Your task to perform on an android device: Open display settings Image 0: 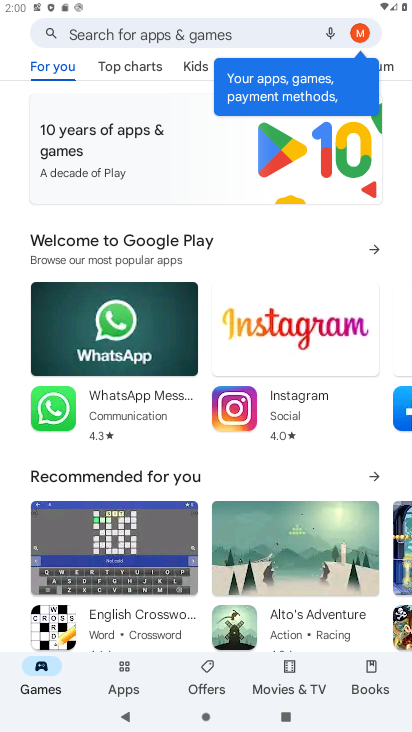
Step 0: press home button
Your task to perform on an android device: Open display settings Image 1: 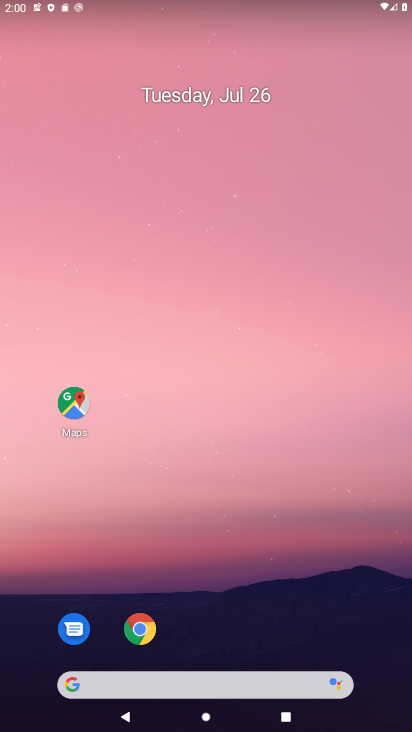
Step 1: drag from (246, 618) to (146, 204)
Your task to perform on an android device: Open display settings Image 2: 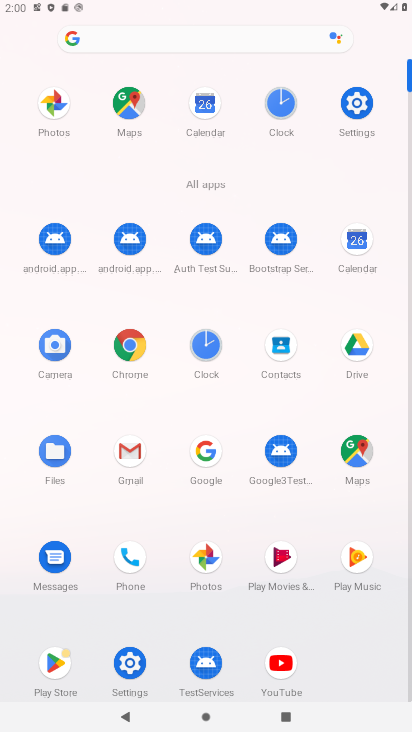
Step 2: click (216, 346)
Your task to perform on an android device: Open display settings Image 3: 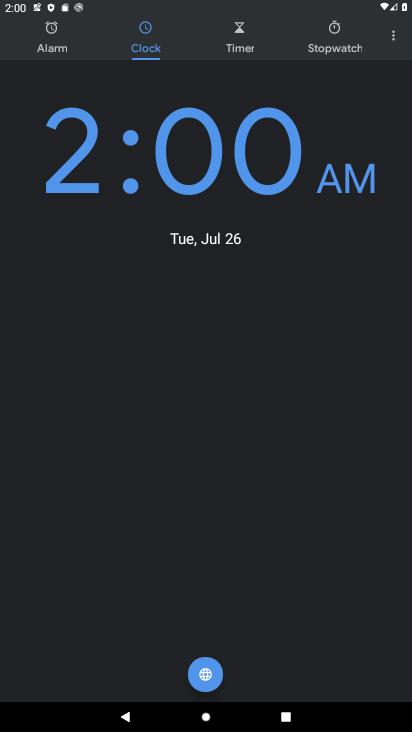
Step 3: press home button
Your task to perform on an android device: Open display settings Image 4: 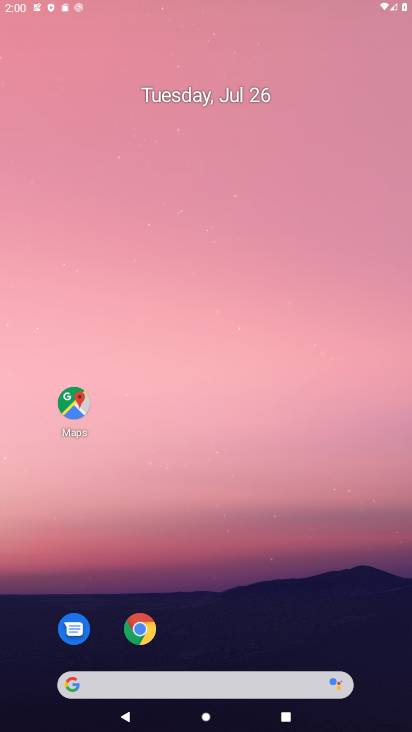
Step 4: drag from (230, 623) to (206, 162)
Your task to perform on an android device: Open display settings Image 5: 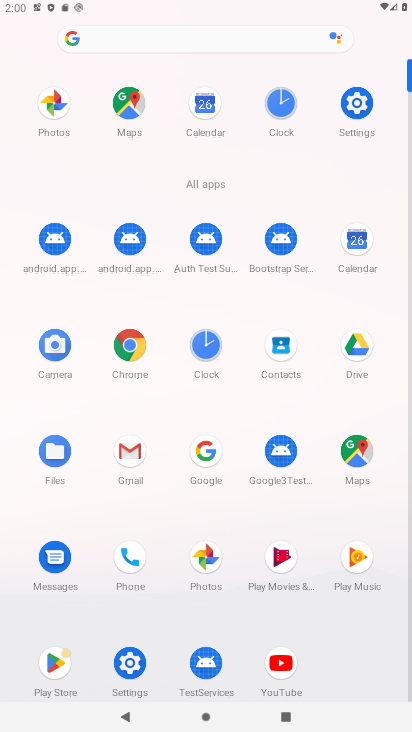
Step 5: click (367, 119)
Your task to perform on an android device: Open display settings Image 6: 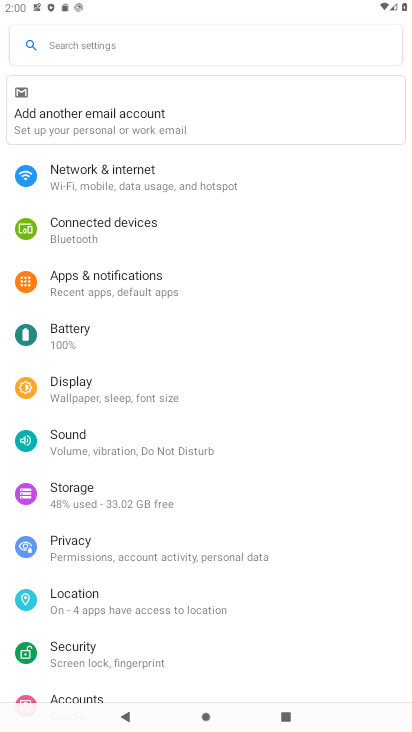
Step 6: click (109, 378)
Your task to perform on an android device: Open display settings Image 7: 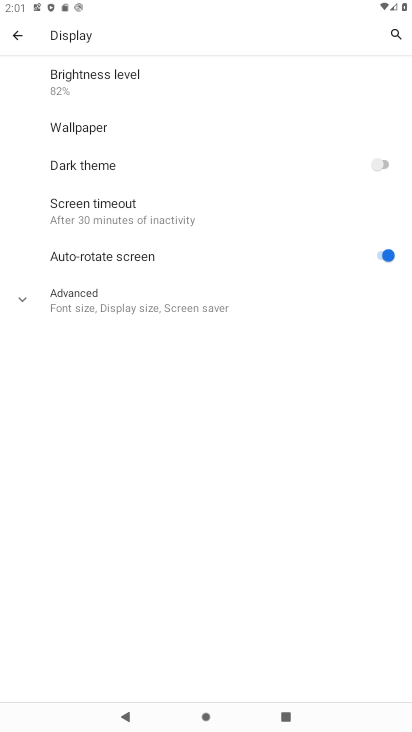
Step 7: task complete